Your task to perform on an android device: Go to notification settings Image 0: 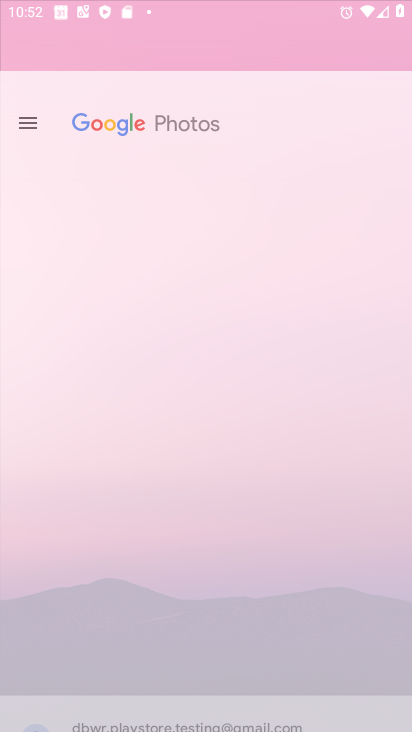
Step 0: press home button
Your task to perform on an android device: Go to notification settings Image 1: 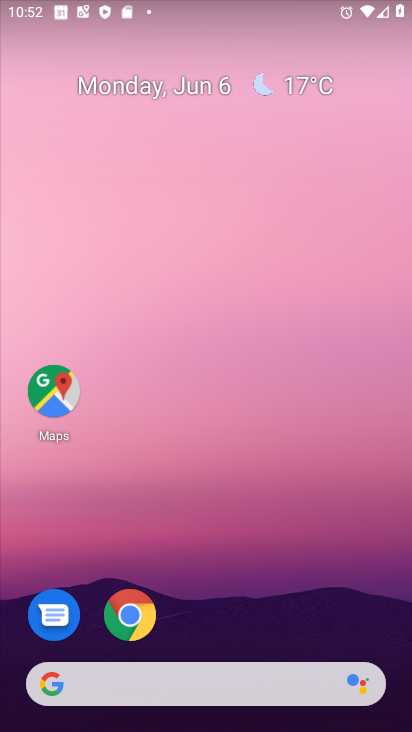
Step 1: drag from (229, 633) to (235, 64)
Your task to perform on an android device: Go to notification settings Image 2: 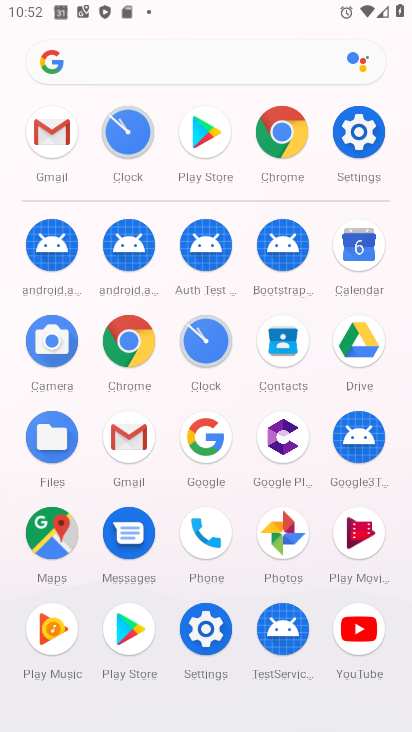
Step 2: click (356, 124)
Your task to perform on an android device: Go to notification settings Image 3: 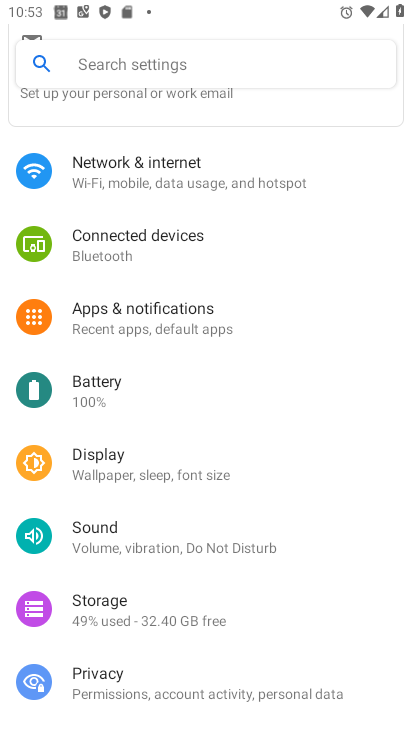
Step 3: click (221, 311)
Your task to perform on an android device: Go to notification settings Image 4: 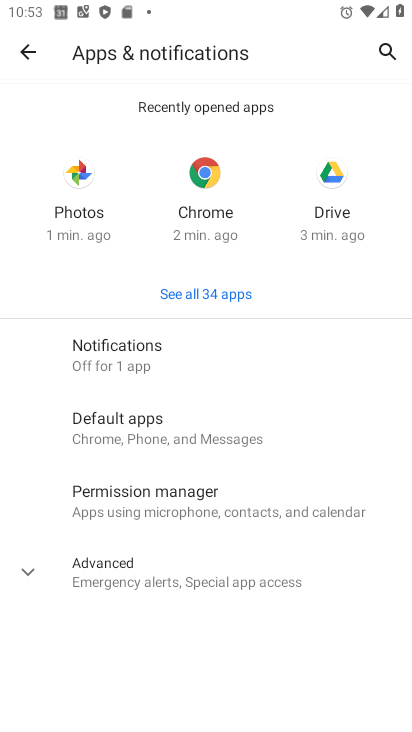
Step 4: click (166, 351)
Your task to perform on an android device: Go to notification settings Image 5: 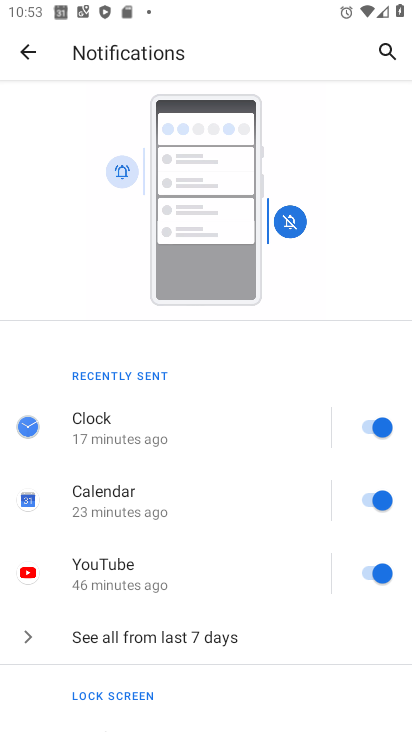
Step 5: drag from (191, 609) to (162, 261)
Your task to perform on an android device: Go to notification settings Image 6: 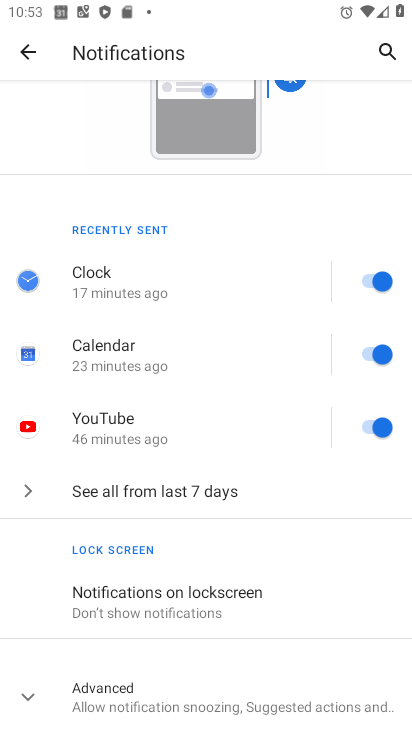
Step 6: click (374, 278)
Your task to perform on an android device: Go to notification settings Image 7: 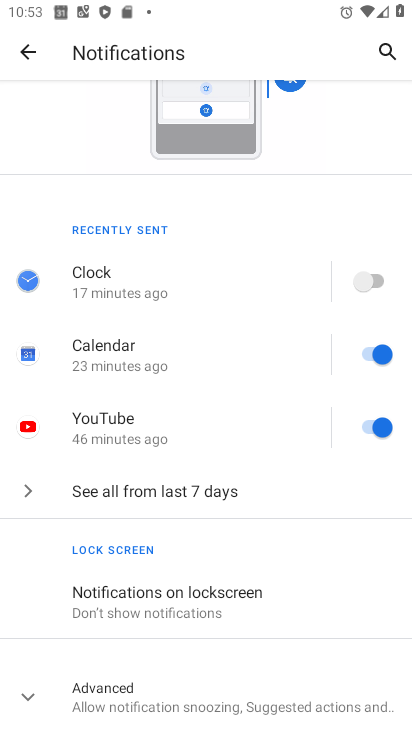
Step 7: click (374, 347)
Your task to perform on an android device: Go to notification settings Image 8: 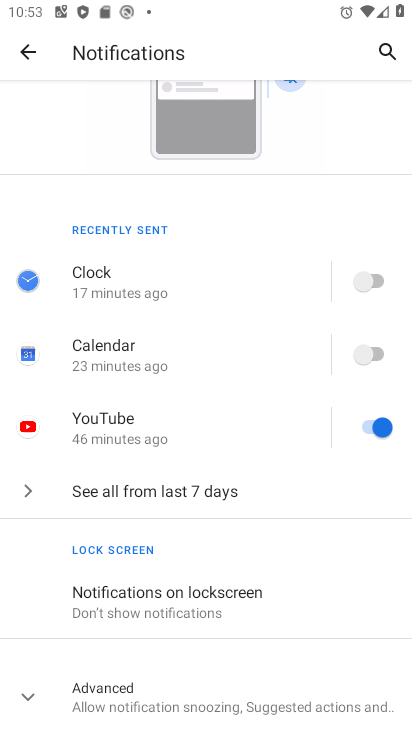
Step 8: click (372, 428)
Your task to perform on an android device: Go to notification settings Image 9: 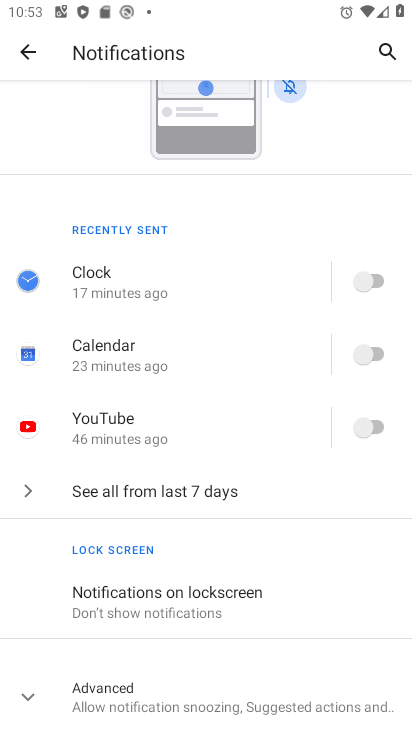
Step 9: click (74, 690)
Your task to perform on an android device: Go to notification settings Image 10: 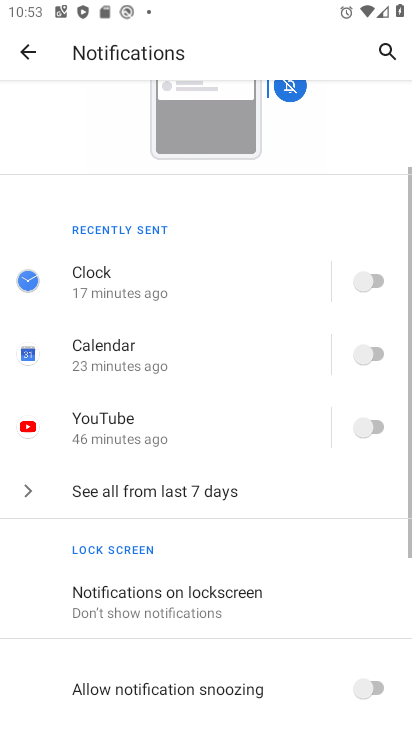
Step 10: task complete